Your task to perform on an android device: Is it going to rain tomorrow? Image 0: 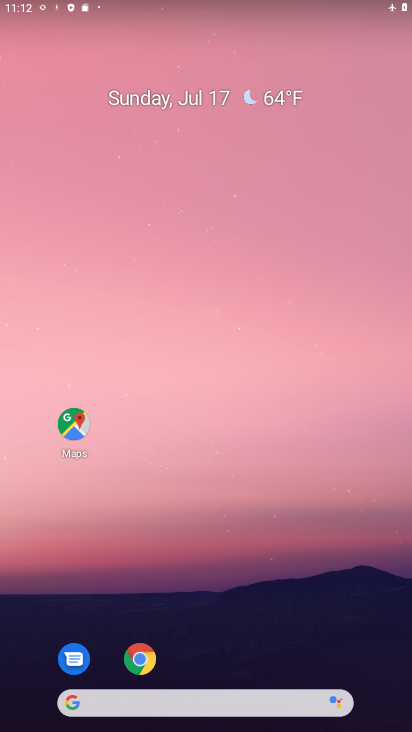
Step 0: drag from (325, 611) to (348, 82)
Your task to perform on an android device: Is it going to rain tomorrow? Image 1: 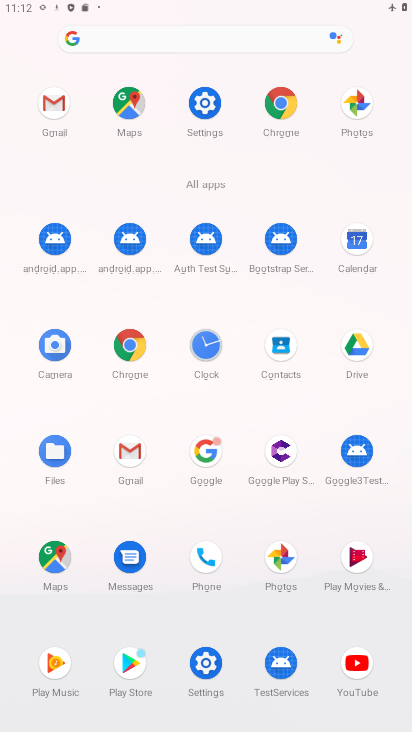
Step 1: press home button
Your task to perform on an android device: Is it going to rain tomorrow? Image 2: 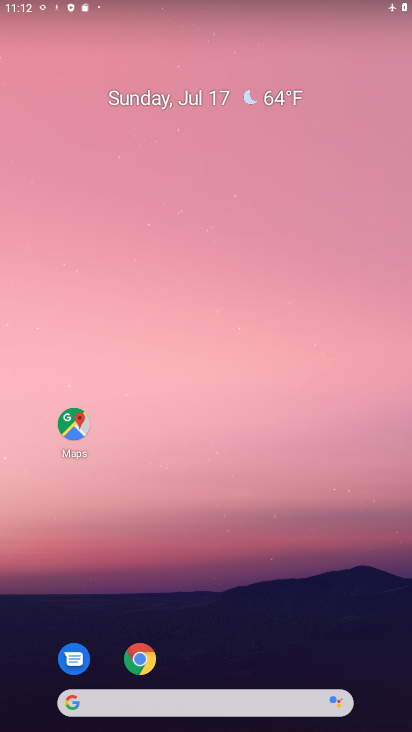
Step 2: click (205, 701)
Your task to perform on an android device: Is it going to rain tomorrow? Image 3: 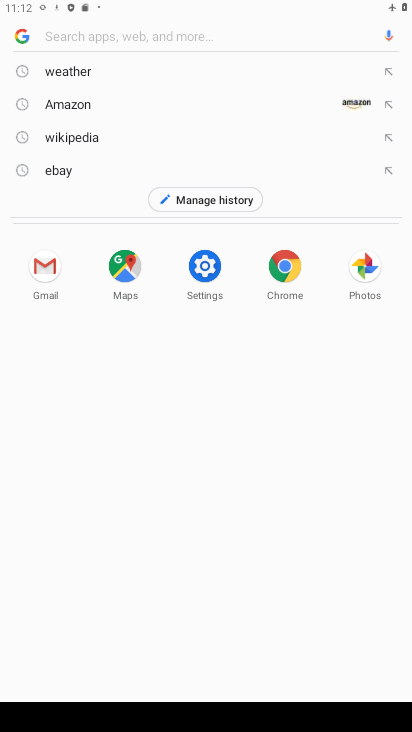
Step 3: click (102, 70)
Your task to perform on an android device: Is it going to rain tomorrow? Image 4: 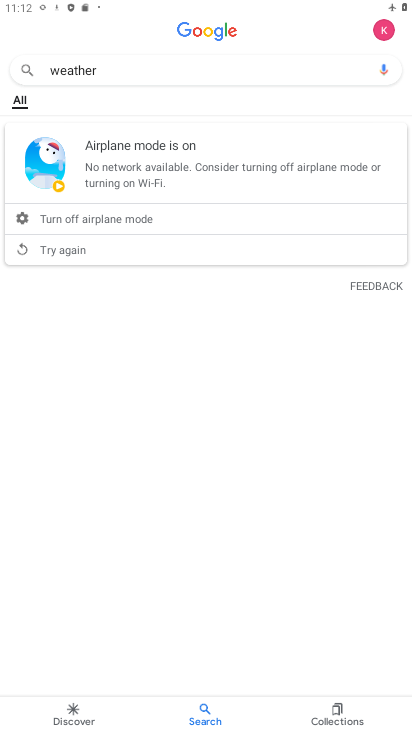
Step 4: task complete